Your task to perform on an android device: Do I have any events tomorrow? Image 0: 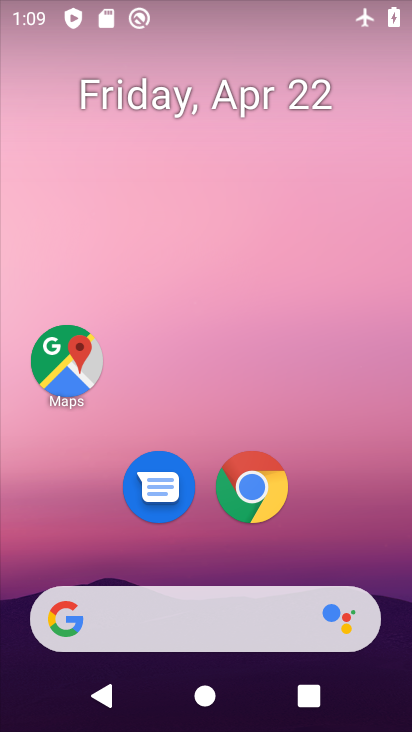
Step 0: drag from (226, 558) to (233, 146)
Your task to perform on an android device: Do I have any events tomorrow? Image 1: 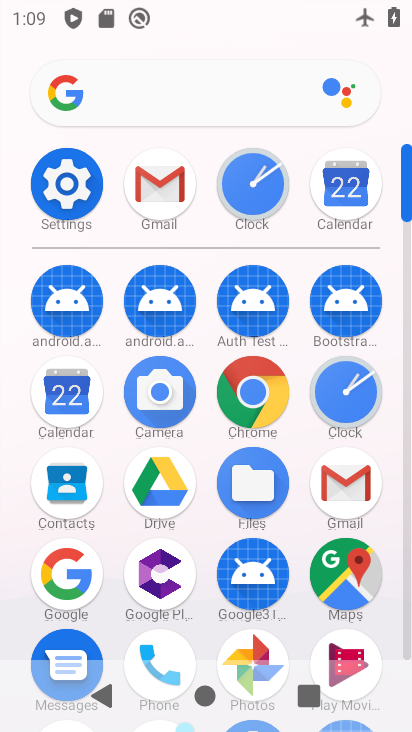
Step 1: click (68, 407)
Your task to perform on an android device: Do I have any events tomorrow? Image 2: 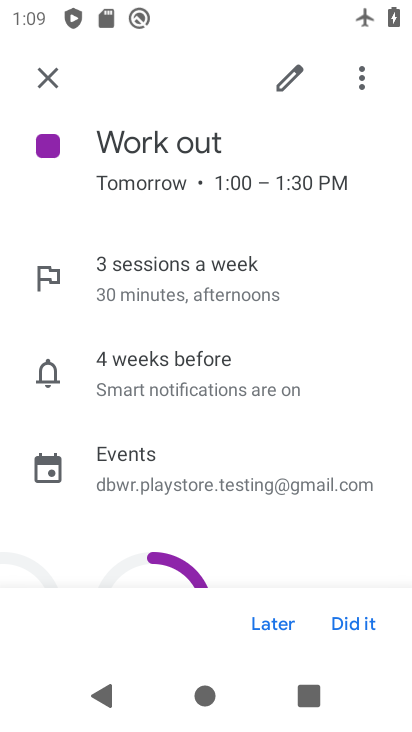
Step 2: click (339, 617)
Your task to perform on an android device: Do I have any events tomorrow? Image 3: 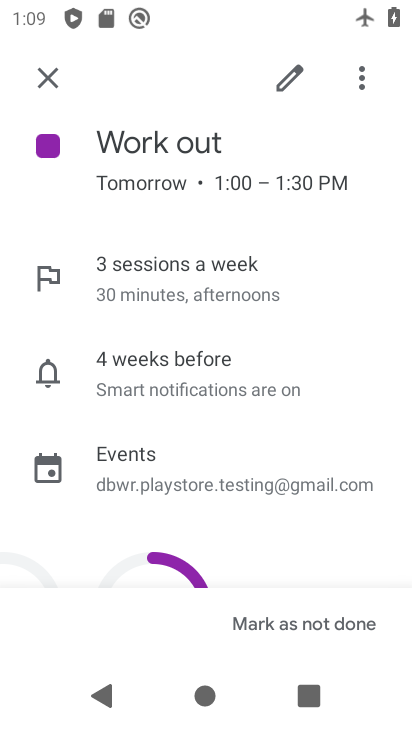
Step 3: click (44, 84)
Your task to perform on an android device: Do I have any events tomorrow? Image 4: 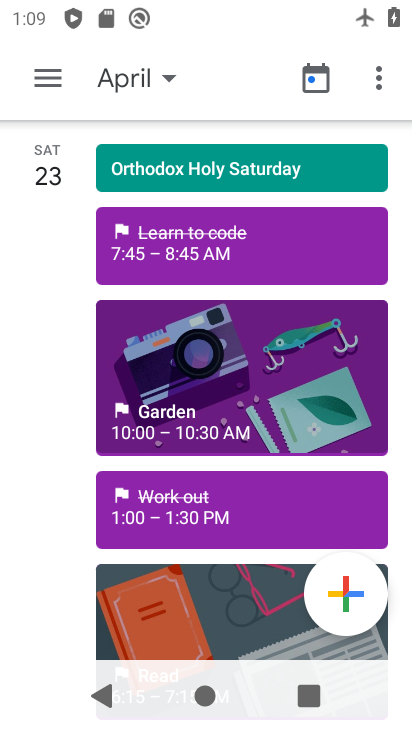
Step 4: click (133, 82)
Your task to perform on an android device: Do I have any events tomorrow? Image 5: 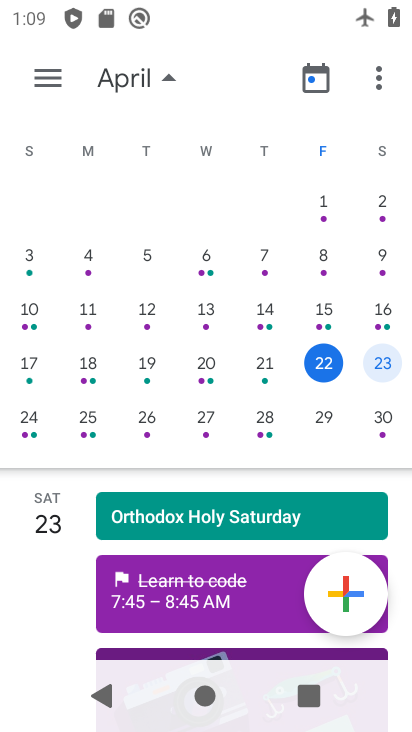
Step 5: click (375, 362)
Your task to perform on an android device: Do I have any events tomorrow? Image 6: 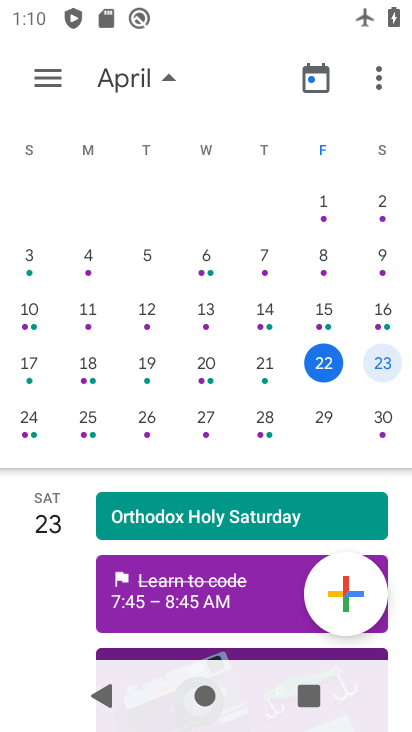
Step 6: click (390, 369)
Your task to perform on an android device: Do I have any events tomorrow? Image 7: 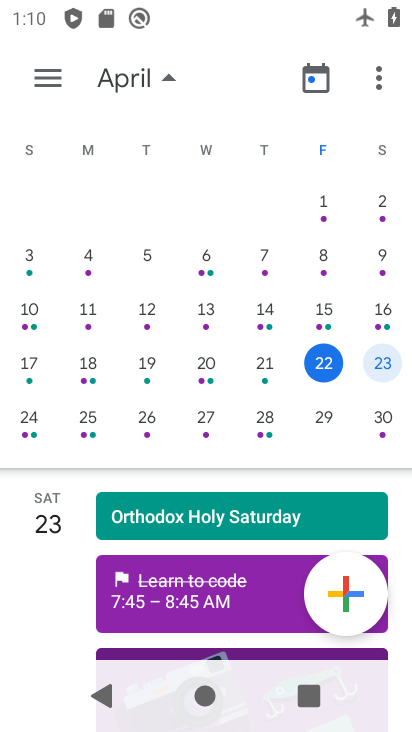
Step 7: click (384, 363)
Your task to perform on an android device: Do I have any events tomorrow? Image 8: 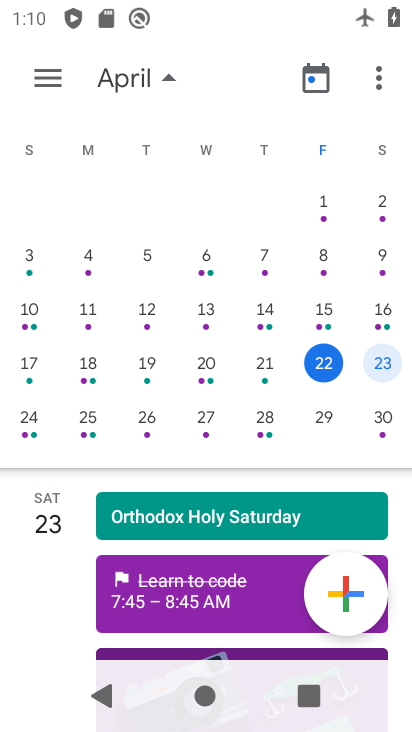
Step 8: click (384, 363)
Your task to perform on an android device: Do I have any events tomorrow? Image 9: 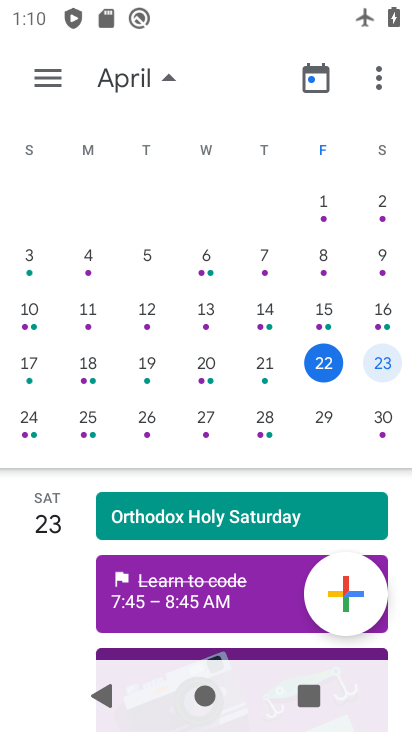
Step 9: drag from (258, 525) to (258, 362)
Your task to perform on an android device: Do I have any events tomorrow? Image 10: 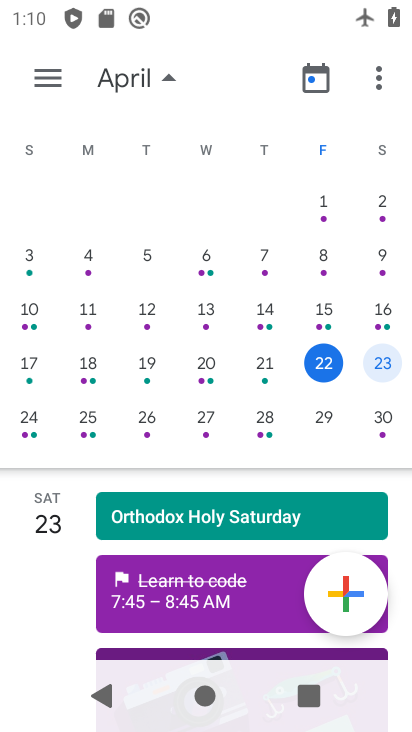
Step 10: click (378, 201)
Your task to perform on an android device: Do I have any events tomorrow? Image 11: 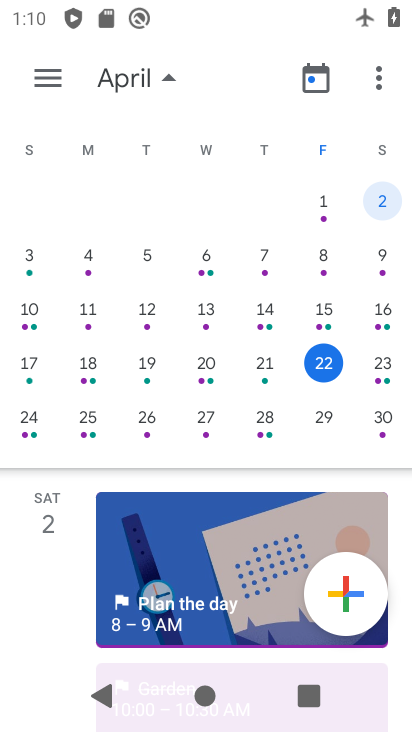
Step 11: click (373, 359)
Your task to perform on an android device: Do I have any events tomorrow? Image 12: 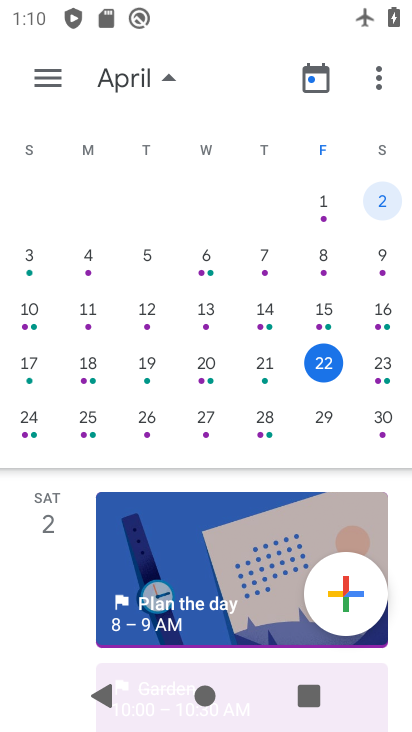
Step 12: click (385, 363)
Your task to perform on an android device: Do I have any events tomorrow? Image 13: 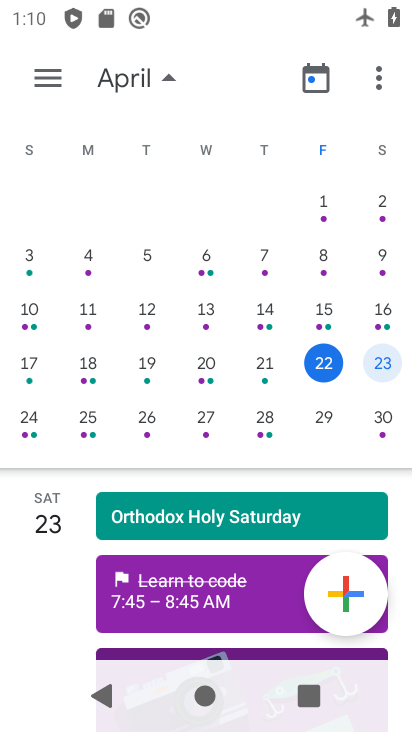
Step 13: click (385, 363)
Your task to perform on an android device: Do I have any events tomorrow? Image 14: 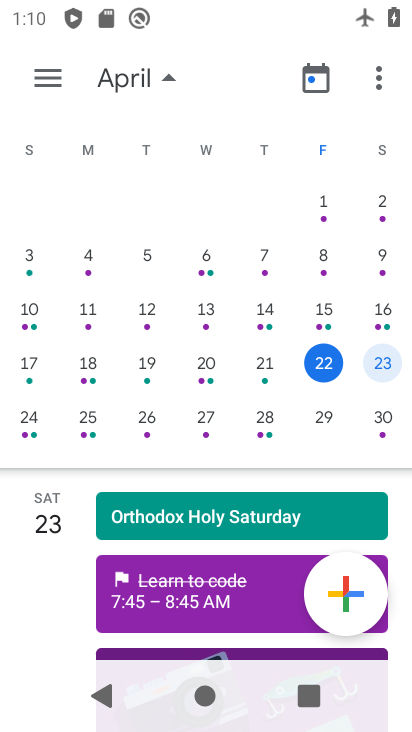
Step 14: drag from (230, 597) to (269, 352)
Your task to perform on an android device: Do I have any events tomorrow? Image 15: 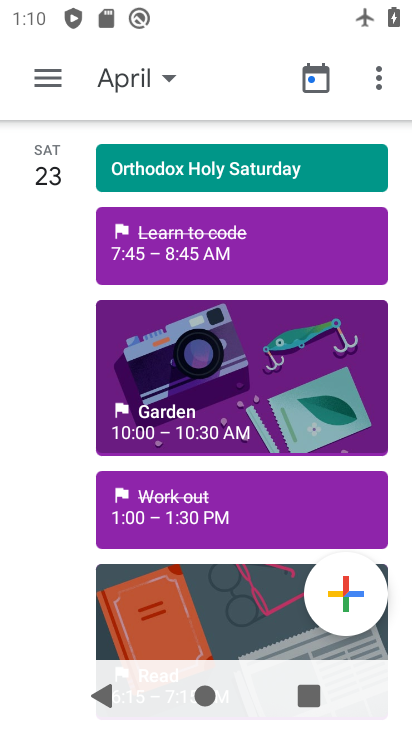
Step 15: click (191, 181)
Your task to perform on an android device: Do I have any events tomorrow? Image 16: 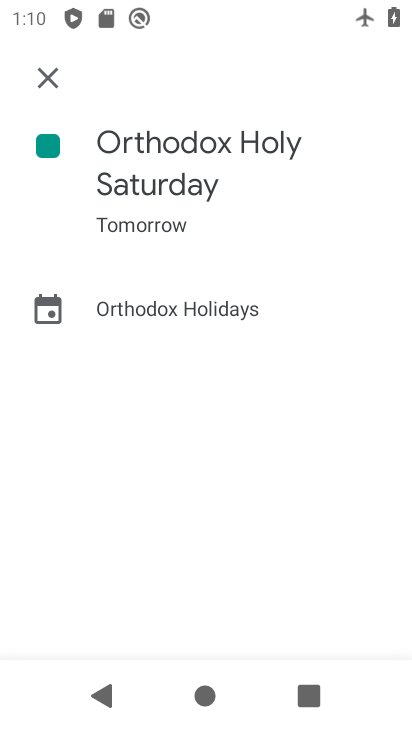
Step 16: task complete